Your task to perform on an android device: Go to calendar. Show me events next week Image 0: 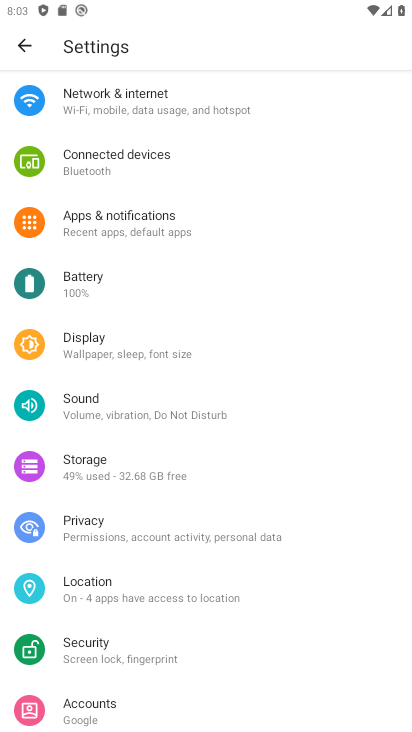
Step 0: press home button
Your task to perform on an android device: Go to calendar. Show me events next week Image 1: 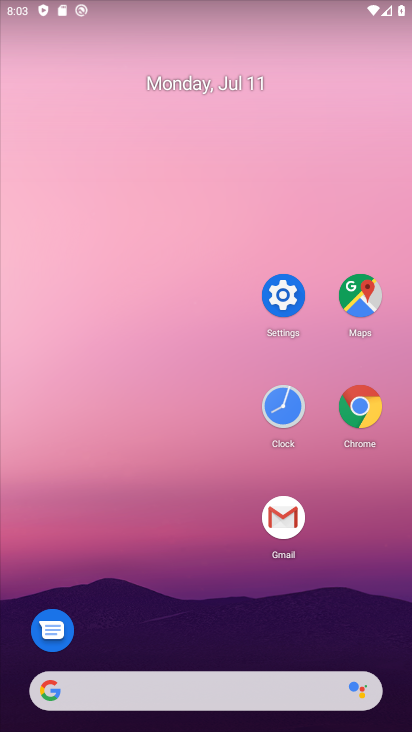
Step 1: drag from (251, 618) to (258, 95)
Your task to perform on an android device: Go to calendar. Show me events next week Image 2: 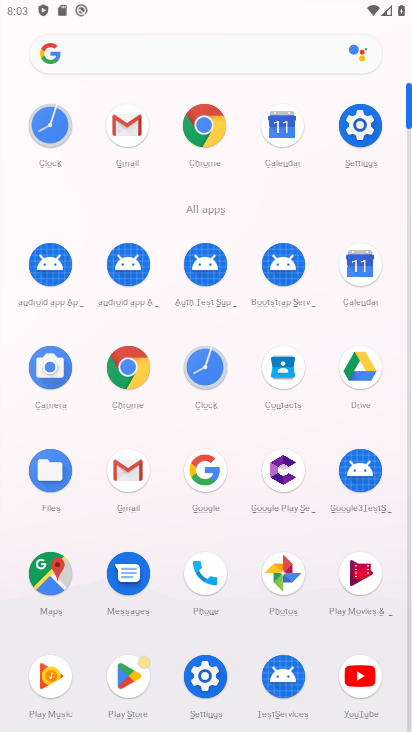
Step 2: drag from (281, 133) to (317, 537)
Your task to perform on an android device: Go to calendar. Show me events next week Image 3: 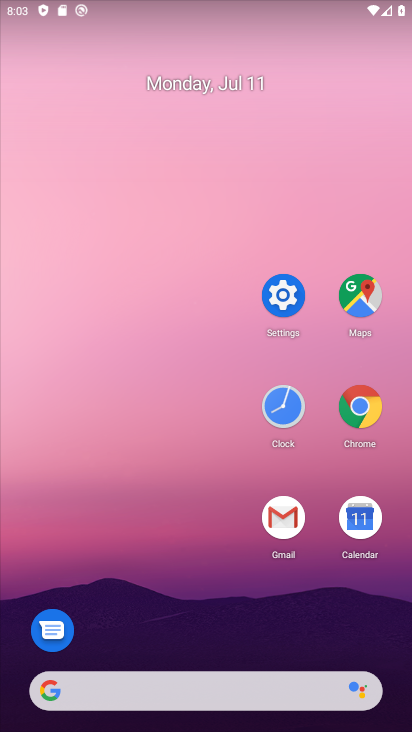
Step 3: click (371, 521)
Your task to perform on an android device: Go to calendar. Show me events next week Image 4: 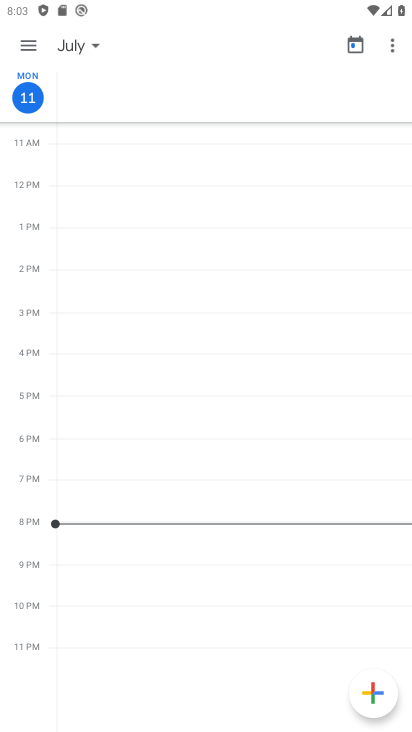
Step 4: click (26, 49)
Your task to perform on an android device: Go to calendar. Show me events next week Image 5: 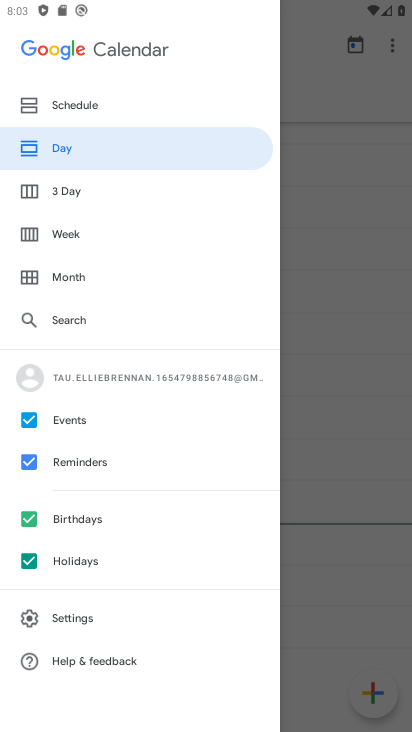
Step 5: click (149, 238)
Your task to perform on an android device: Go to calendar. Show me events next week Image 6: 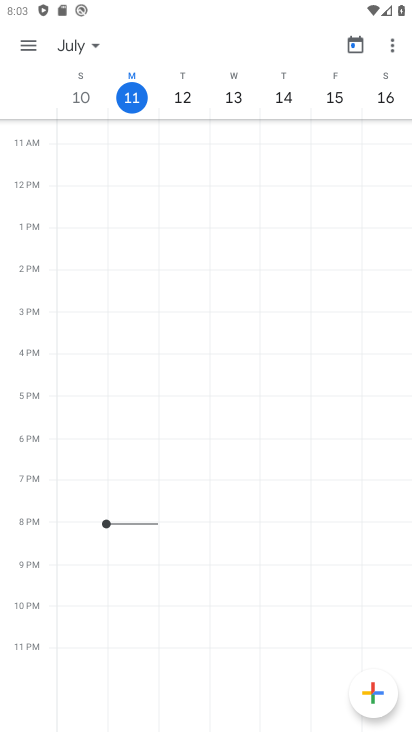
Step 6: task complete